Your task to perform on an android device: Go to battery settings Image 0: 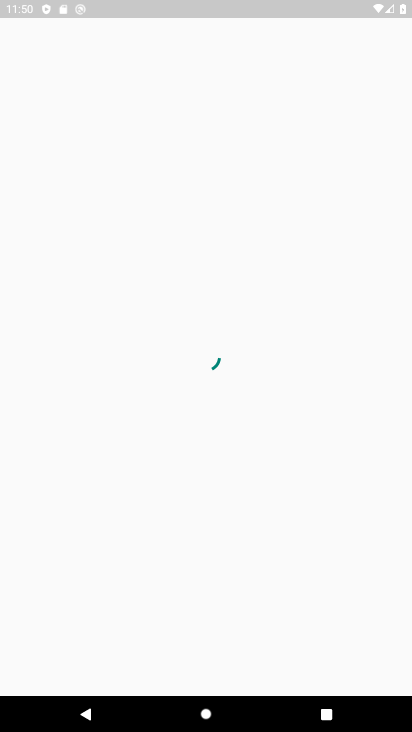
Step 0: press home button
Your task to perform on an android device: Go to battery settings Image 1: 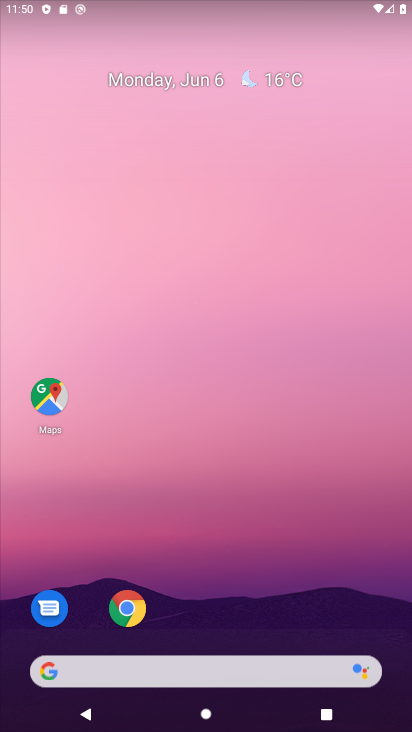
Step 1: drag from (281, 629) to (300, 23)
Your task to perform on an android device: Go to battery settings Image 2: 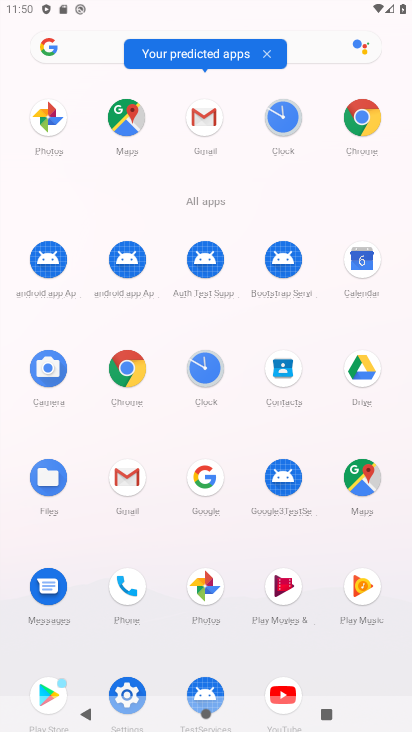
Step 2: drag from (129, 650) to (145, 285)
Your task to perform on an android device: Go to battery settings Image 3: 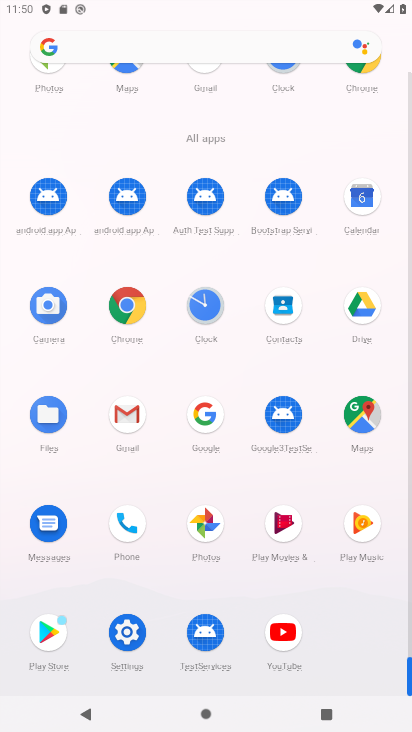
Step 3: click (115, 626)
Your task to perform on an android device: Go to battery settings Image 4: 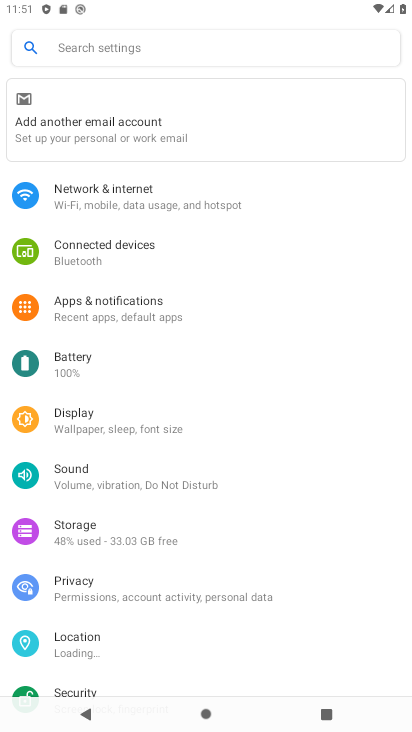
Step 4: click (97, 364)
Your task to perform on an android device: Go to battery settings Image 5: 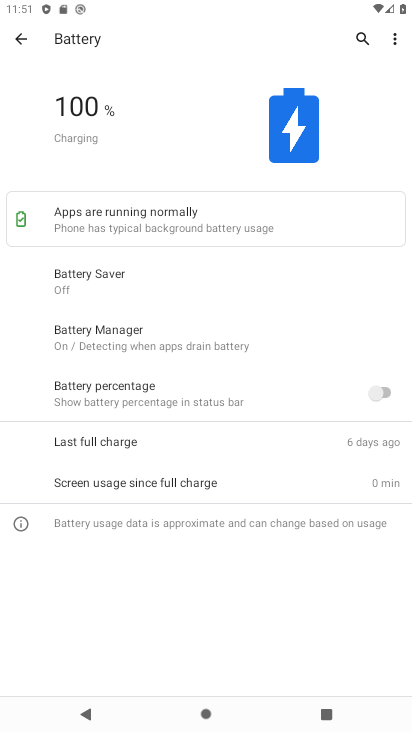
Step 5: task complete